Your task to perform on an android device: Show me popular videos on Youtube Image 0: 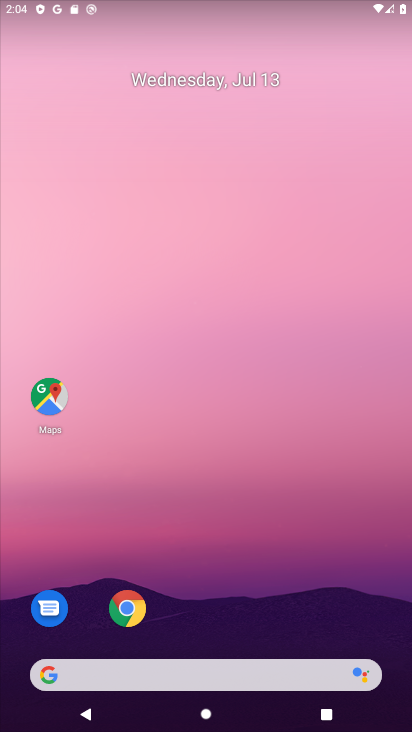
Step 0: drag from (162, 617) to (329, 72)
Your task to perform on an android device: Show me popular videos on Youtube Image 1: 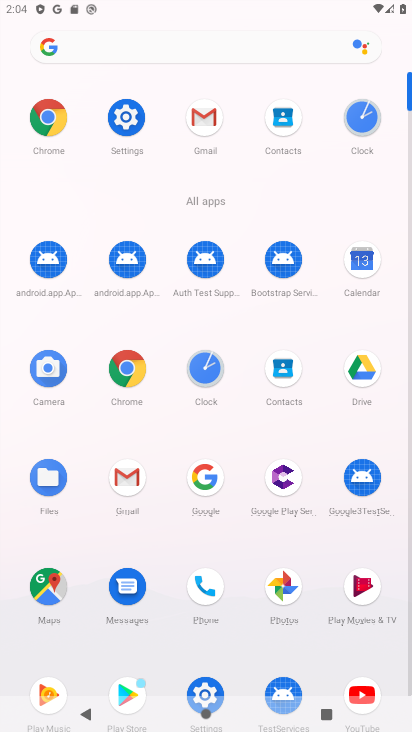
Step 1: click (354, 689)
Your task to perform on an android device: Show me popular videos on Youtube Image 2: 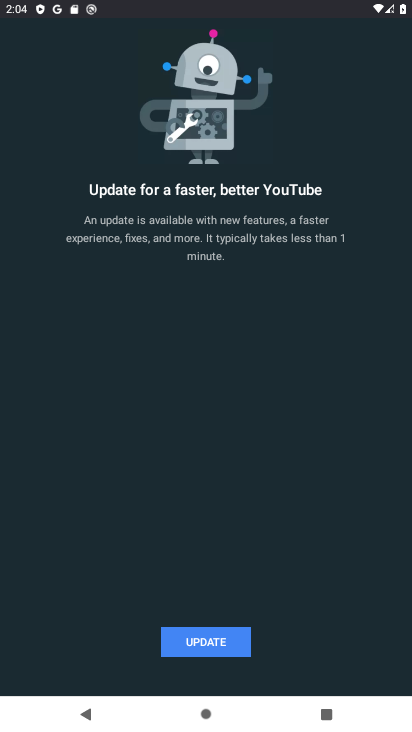
Step 2: click (210, 643)
Your task to perform on an android device: Show me popular videos on Youtube Image 3: 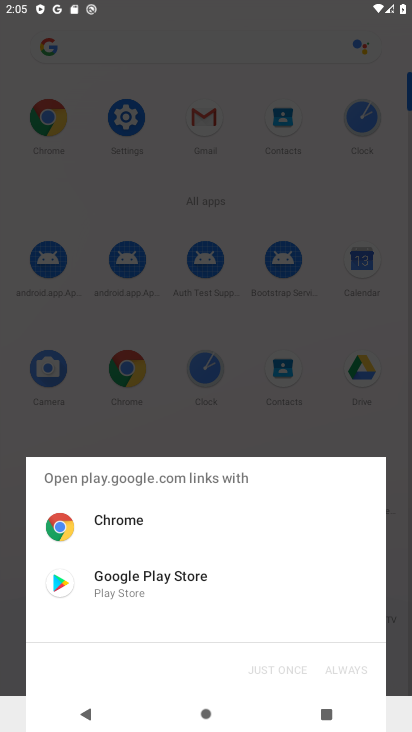
Step 3: click (145, 601)
Your task to perform on an android device: Show me popular videos on Youtube Image 4: 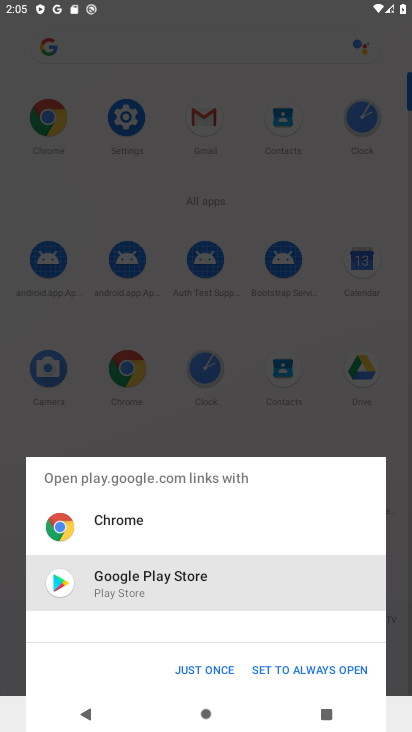
Step 4: click (198, 671)
Your task to perform on an android device: Show me popular videos on Youtube Image 5: 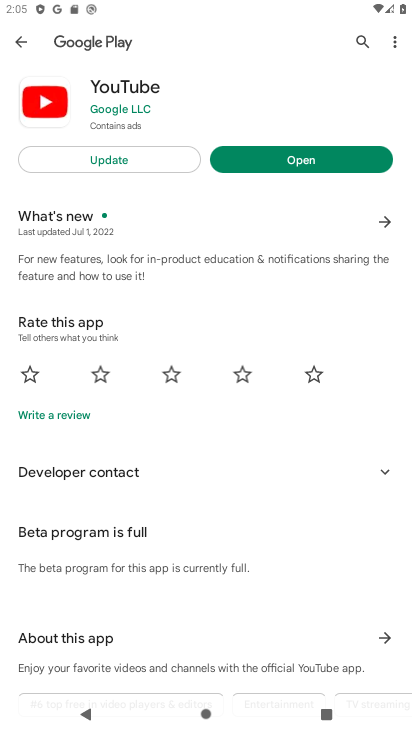
Step 5: click (114, 166)
Your task to perform on an android device: Show me popular videos on Youtube Image 6: 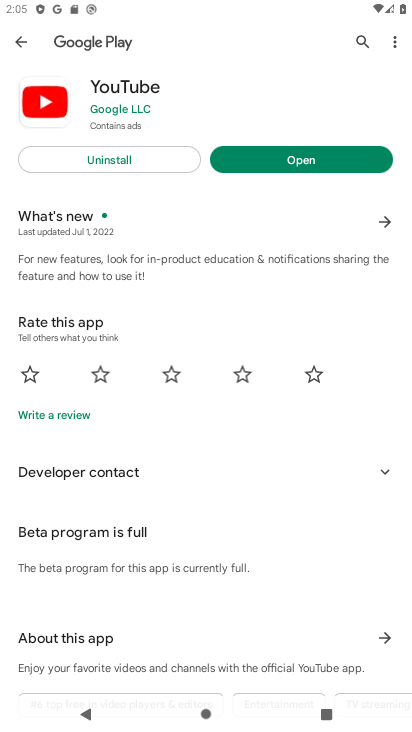
Step 6: click (365, 166)
Your task to perform on an android device: Show me popular videos on Youtube Image 7: 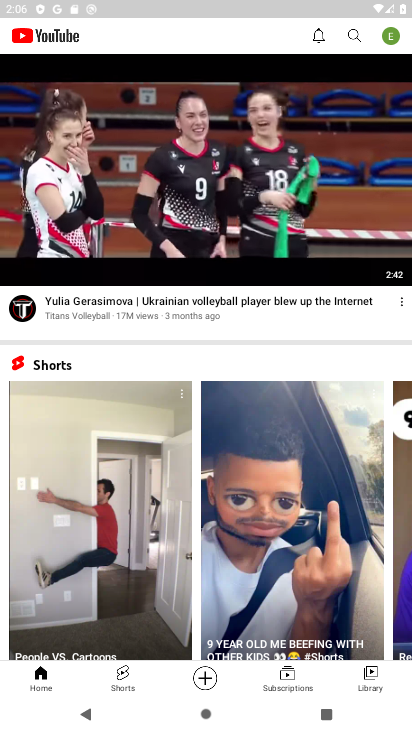
Step 7: drag from (123, 167) to (176, 721)
Your task to perform on an android device: Show me popular videos on Youtube Image 8: 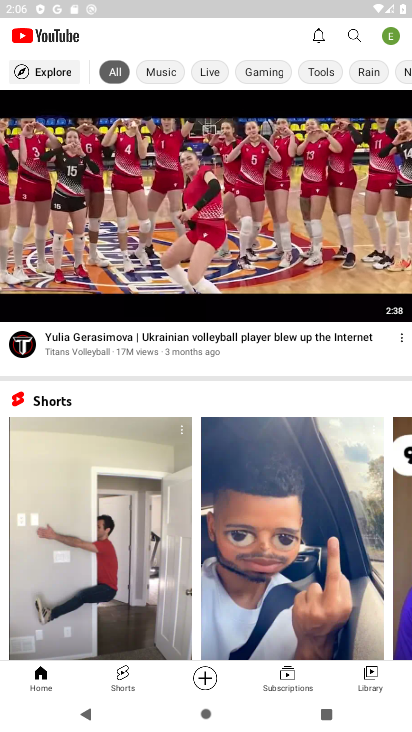
Step 8: click (53, 72)
Your task to perform on an android device: Show me popular videos on Youtube Image 9: 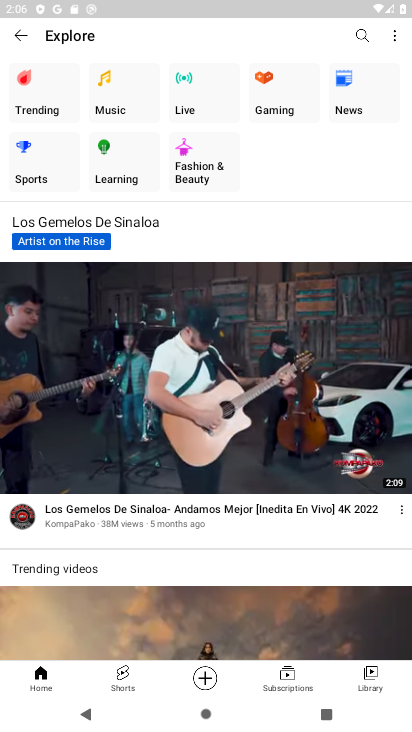
Step 9: click (55, 92)
Your task to perform on an android device: Show me popular videos on Youtube Image 10: 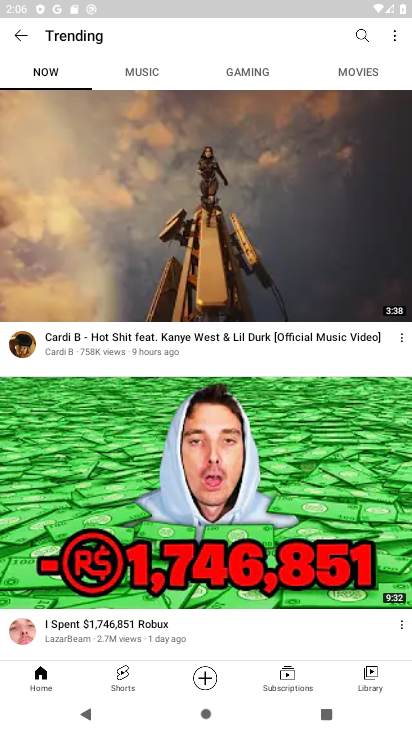
Step 10: task complete